Your task to perform on an android device: What's the weather today? Image 0: 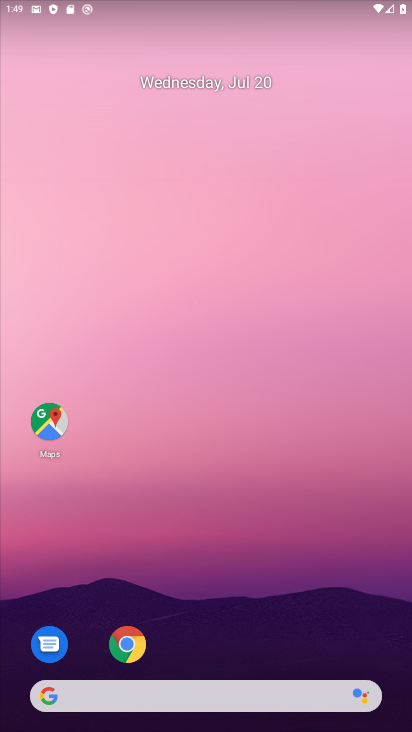
Step 0: click (133, 624)
Your task to perform on an android device: What's the weather today? Image 1: 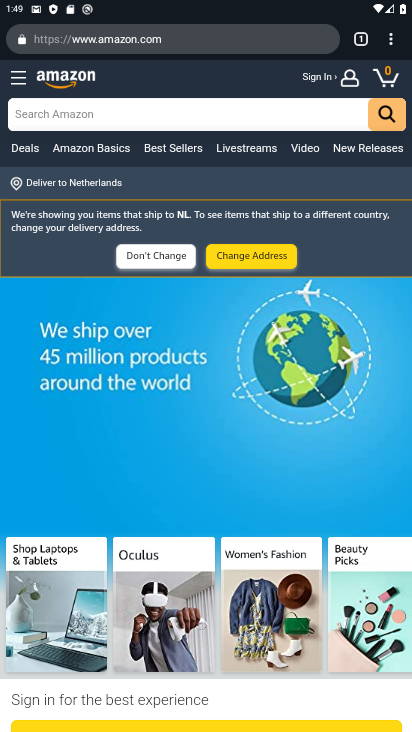
Step 1: click (274, 42)
Your task to perform on an android device: What's the weather today? Image 2: 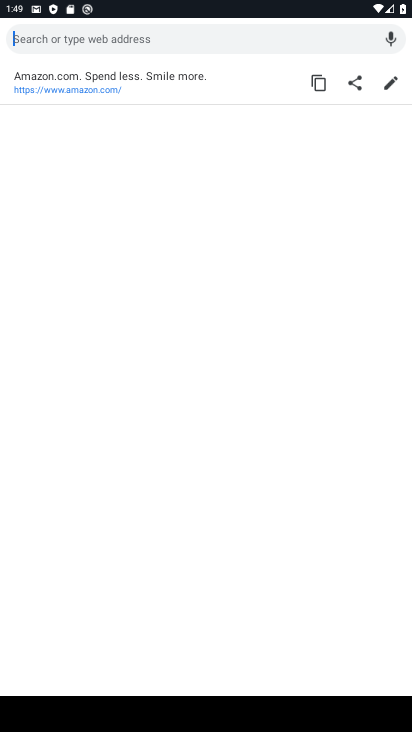
Step 2: type "What's the weather today?"
Your task to perform on an android device: What's the weather today? Image 3: 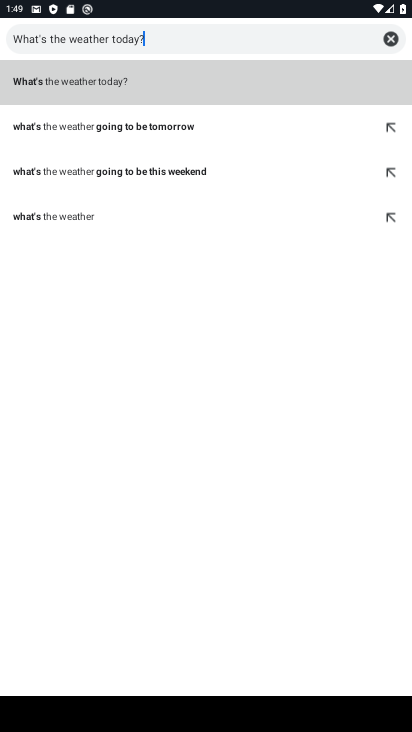
Step 3: type ""
Your task to perform on an android device: What's the weather today? Image 4: 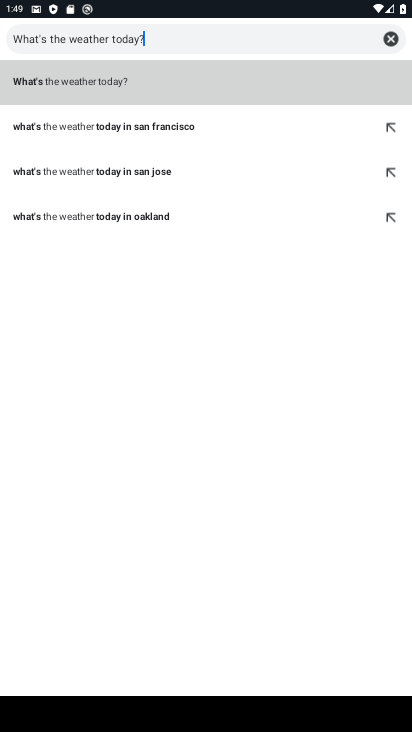
Step 4: click (88, 83)
Your task to perform on an android device: What's the weather today? Image 5: 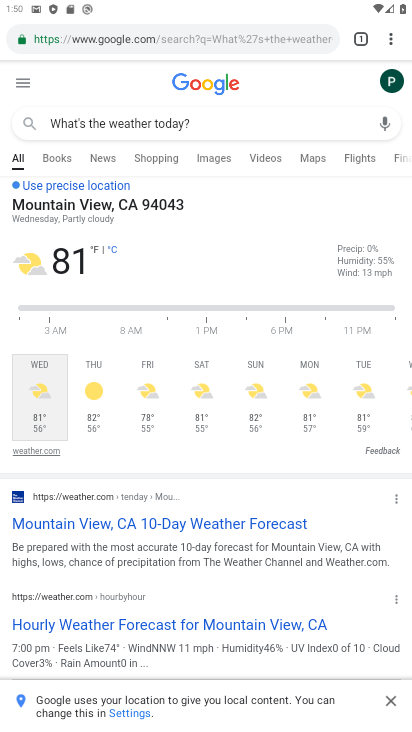
Step 5: task complete